Your task to perform on an android device: turn pop-ups on in chrome Image 0: 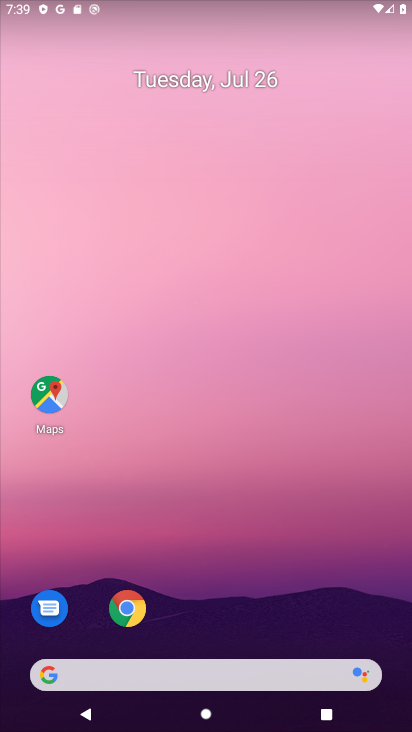
Step 0: drag from (156, 650) to (185, 0)
Your task to perform on an android device: turn pop-ups on in chrome Image 1: 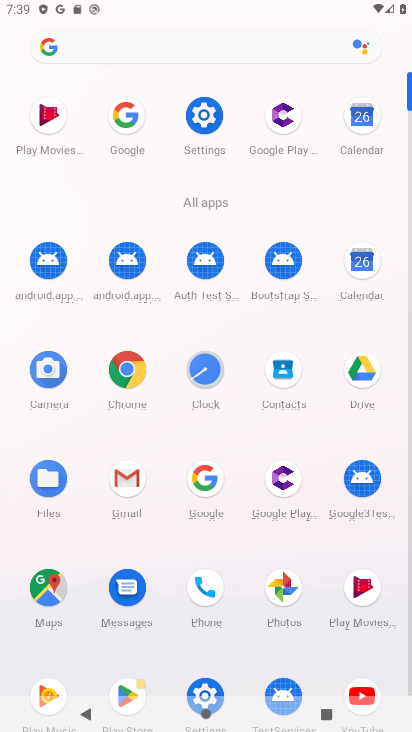
Step 1: click (119, 381)
Your task to perform on an android device: turn pop-ups on in chrome Image 2: 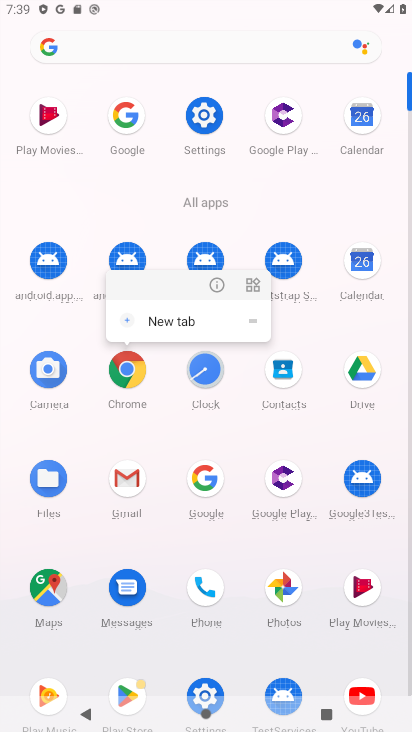
Step 2: click (119, 381)
Your task to perform on an android device: turn pop-ups on in chrome Image 3: 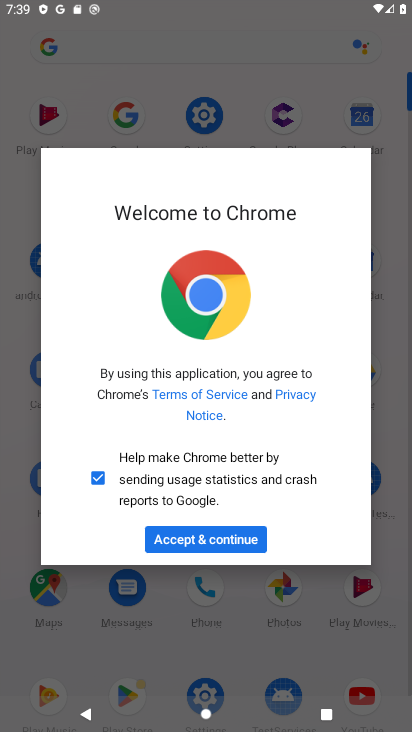
Step 3: click (205, 534)
Your task to perform on an android device: turn pop-ups on in chrome Image 4: 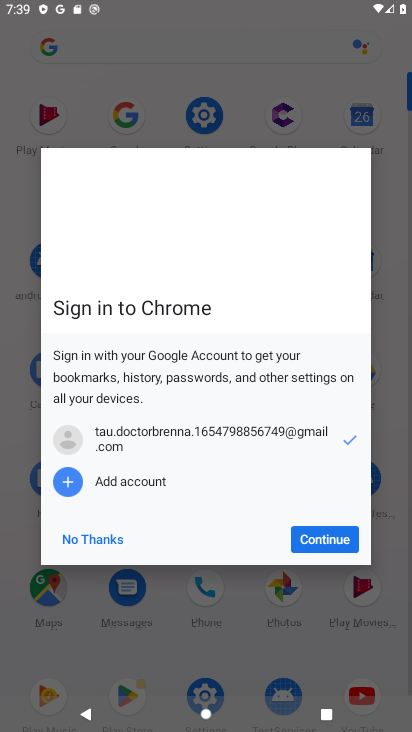
Step 4: click (102, 542)
Your task to perform on an android device: turn pop-ups on in chrome Image 5: 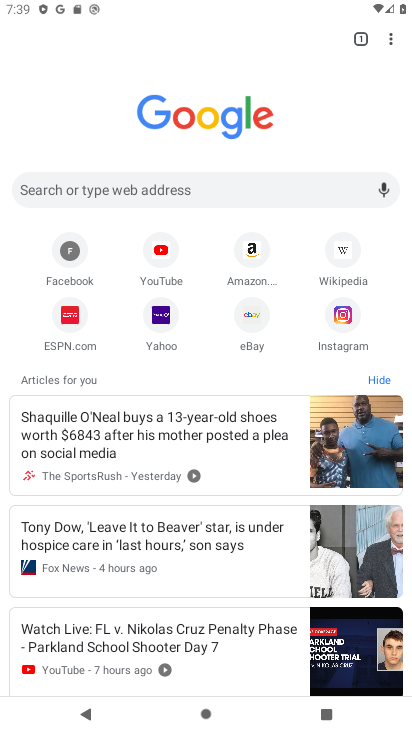
Step 5: drag from (397, 33) to (279, 329)
Your task to perform on an android device: turn pop-ups on in chrome Image 6: 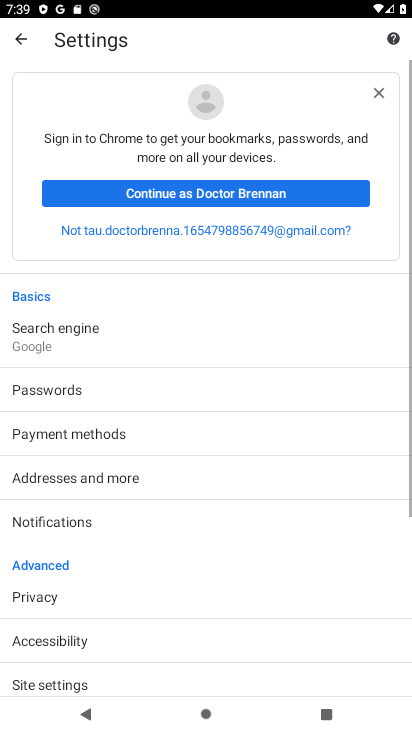
Step 6: drag from (103, 627) to (30, 235)
Your task to perform on an android device: turn pop-ups on in chrome Image 7: 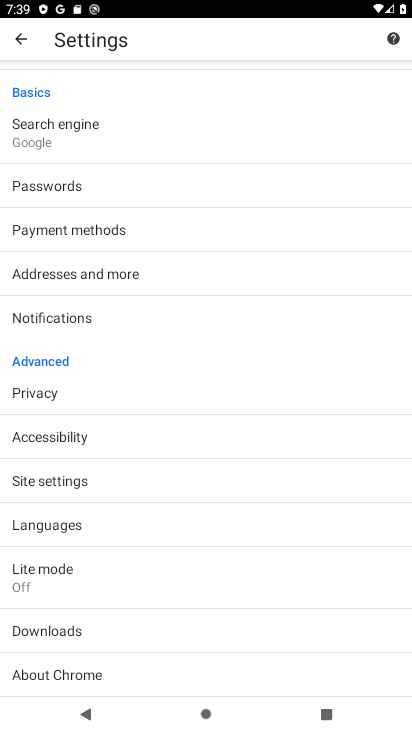
Step 7: click (31, 482)
Your task to perform on an android device: turn pop-ups on in chrome Image 8: 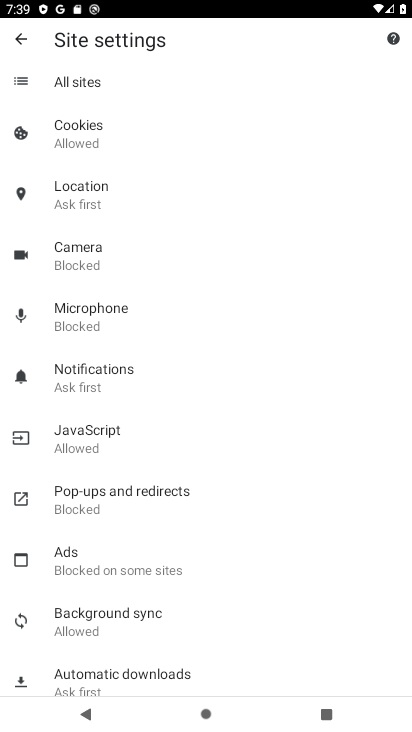
Step 8: click (135, 505)
Your task to perform on an android device: turn pop-ups on in chrome Image 9: 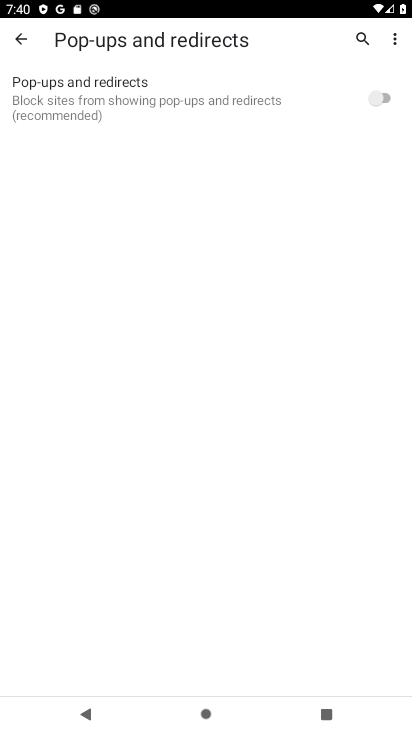
Step 9: click (377, 107)
Your task to perform on an android device: turn pop-ups on in chrome Image 10: 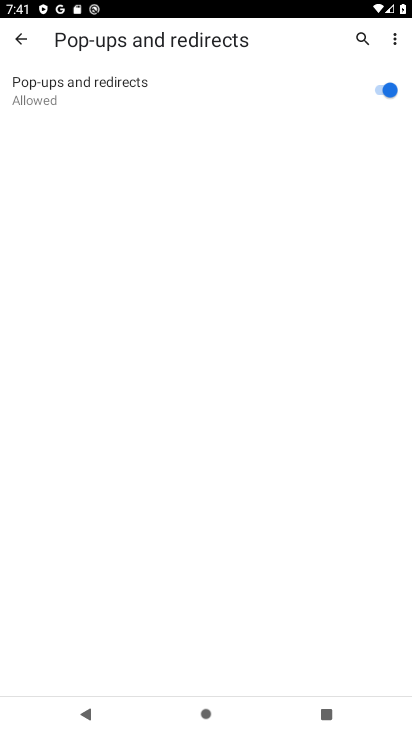
Step 10: task complete